Your task to perform on an android device: turn smart compose on in the gmail app Image 0: 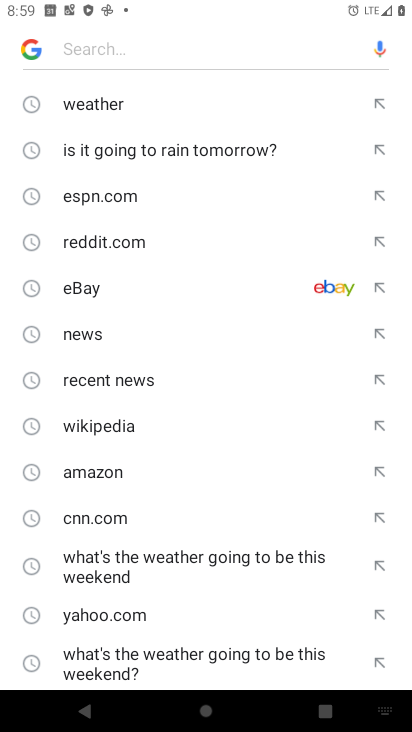
Step 0: press home button
Your task to perform on an android device: turn smart compose on in the gmail app Image 1: 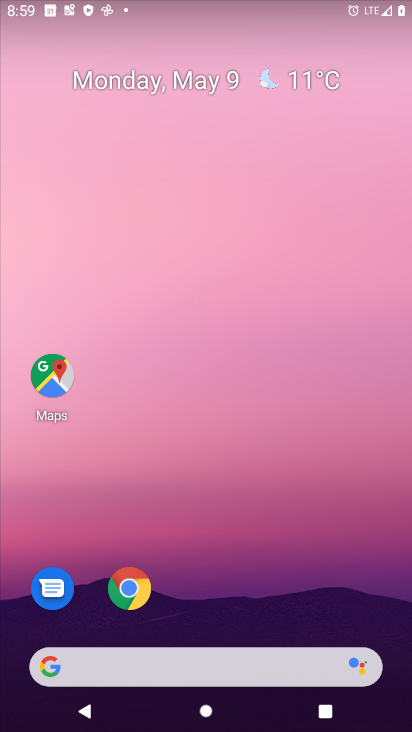
Step 1: drag from (311, 610) to (302, 167)
Your task to perform on an android device: turn smart compose on in the gmail app Image 2: 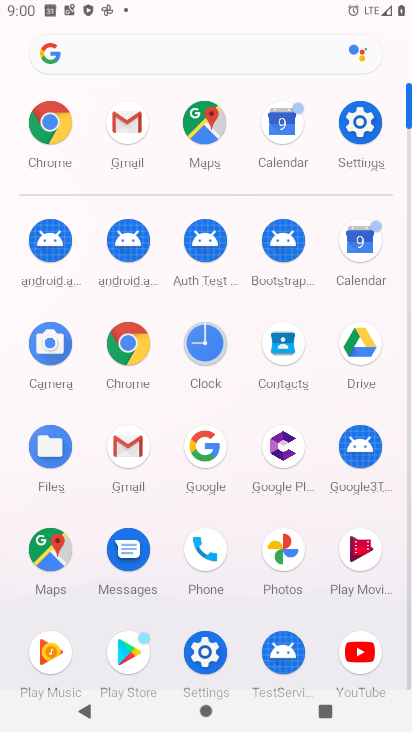
Step 2: click (127, 450)
Your task to perform on an android device: turn smart compose on in the gmail app Image 3: 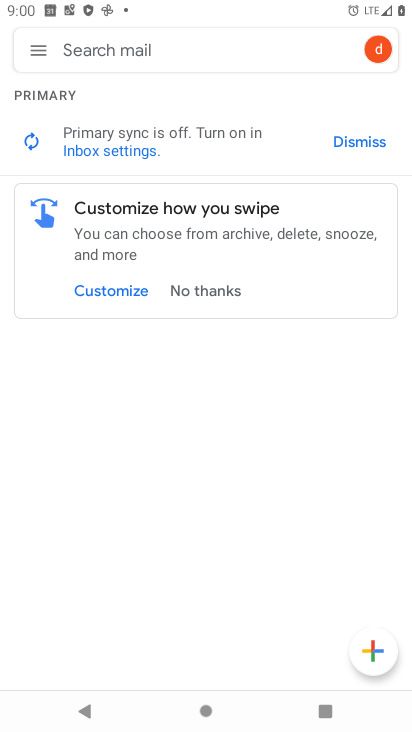
Step 3: click (46, 42)
Your task to perform on an android device: turn smart compose on in the gmail app Image 4: 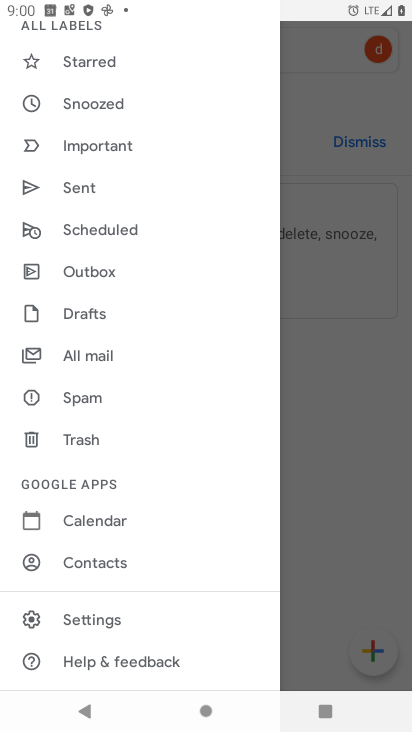
Step 4: click (112, 625)
Your task to perform on an android device: turn smart compose on in the gmail app Image 5: 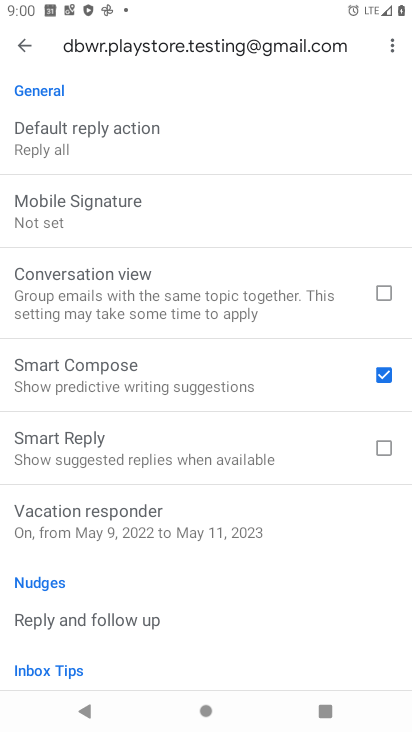
Step 5: task complete